Your task to perform on an android device: Search for vegetarian restaurants on Maps Image 0: 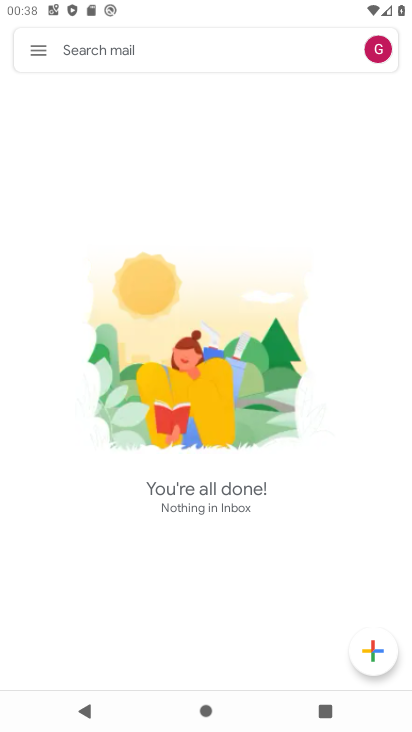
Step 0: press home button
Your task to perform on an android device: Search for vegetarian restaurants on Maps Image 1: 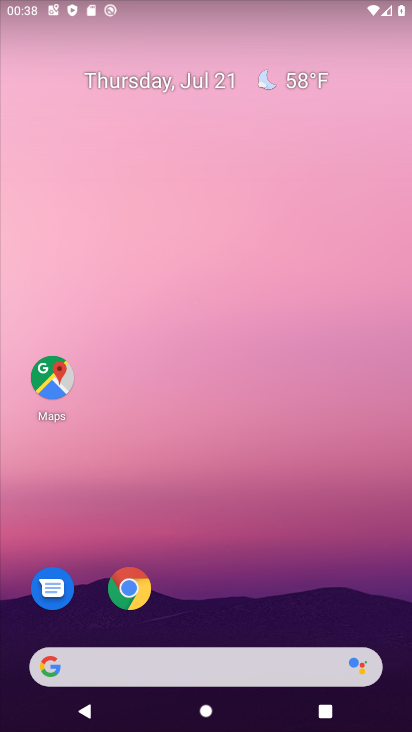
Step 1: click (62, 390)
Your task to perform on an android device: Search for vegetarian restaurants on Maps Image 2: 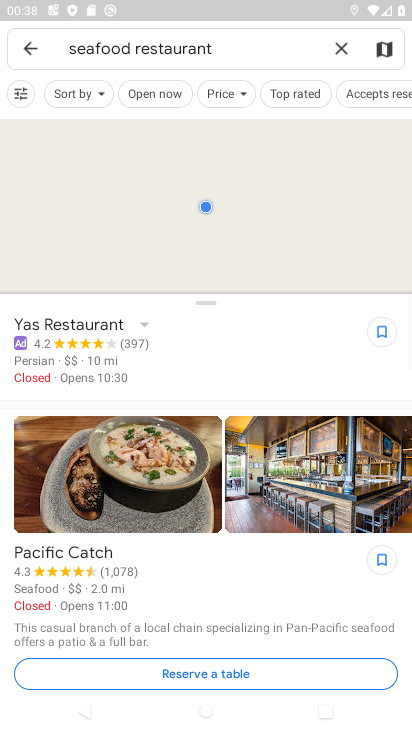
Step 2: click (104, 45)
Your task to perform on an android device: Search for vegetarian restaurants on Maps Image 3: 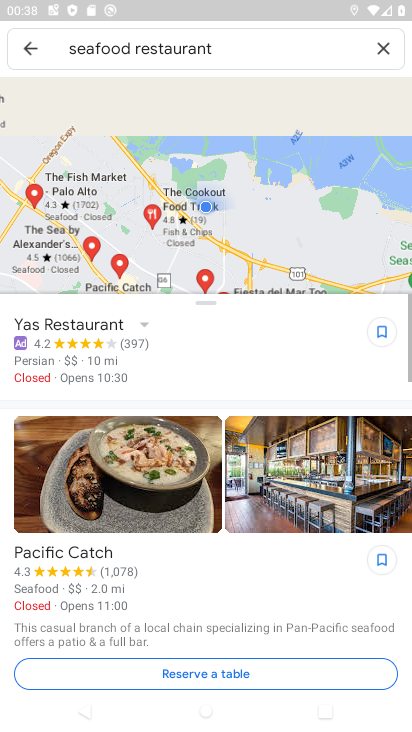
Step 3: click (109, 47)
Your task to perform on an android device: Search for vegetarian restaurants on Maps Image 4: 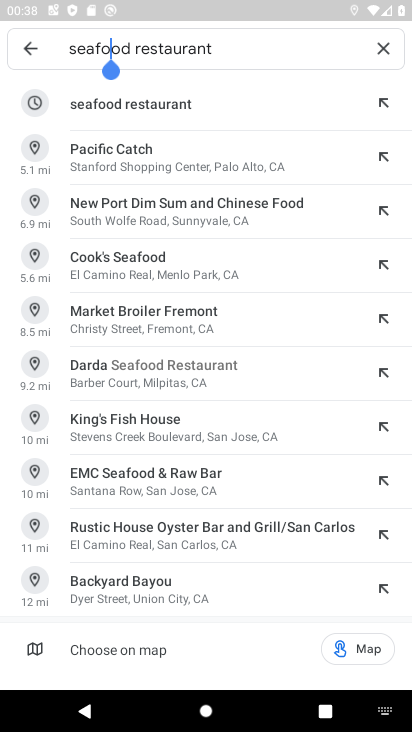
Step 4: click (112, 48)
Your task to perform on an android device: Search for vegetarian restaurants on Maps Image 5: 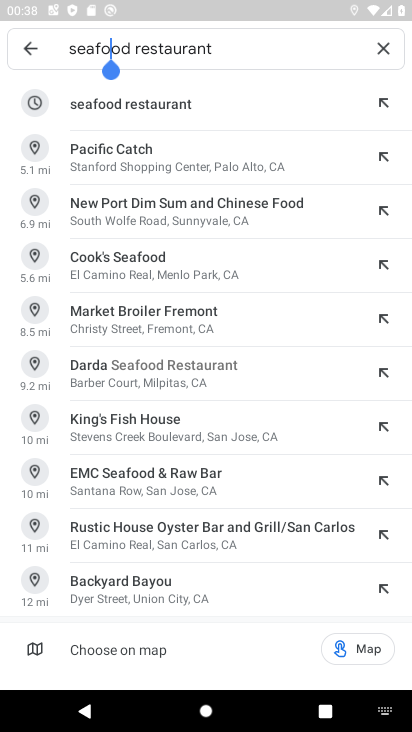
Step 5: click (112, 48)
Your task to perform on an android device: Search for vegetarian restaurants on Maps Image 6: 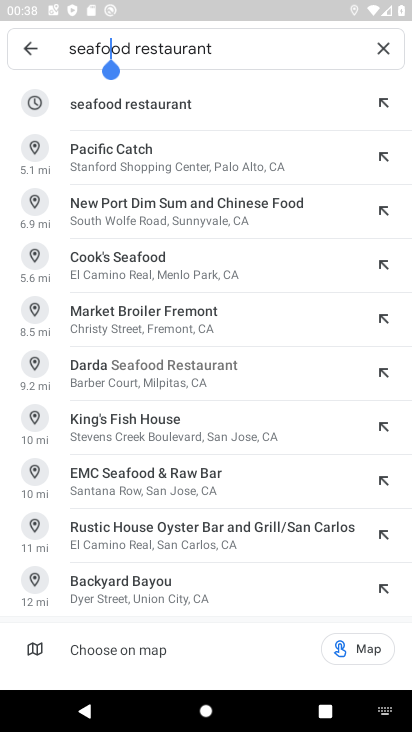
Step 6: click (113, 48)
Your task to perform on an android device: Search for vegetarian restaurants on Maps Image 7: 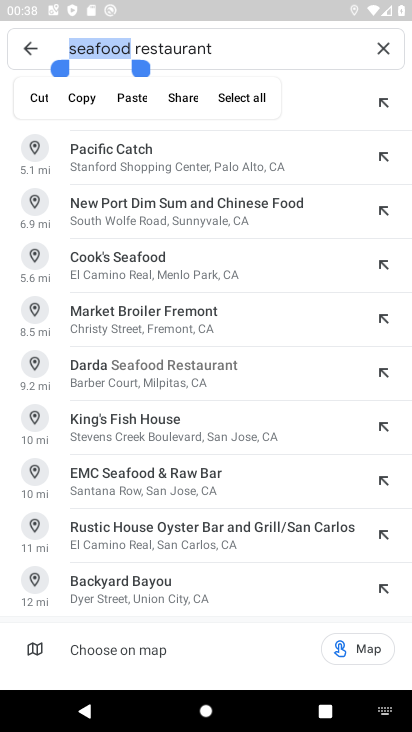
Step 7: type "Vegetarian"
Your task to perform on an android device: Search for vegetarian restaurants on Maps Image 8: 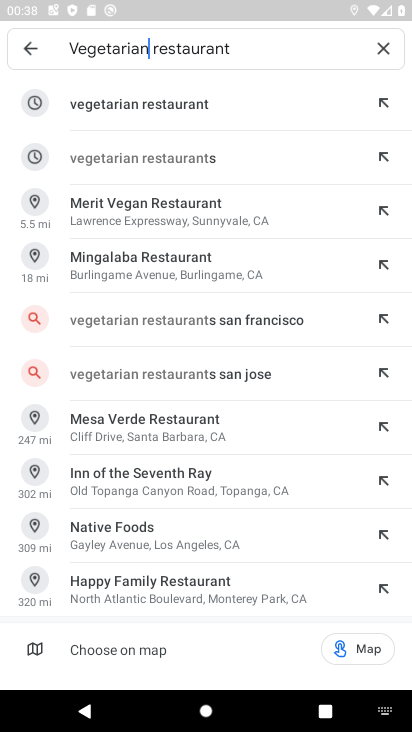
Step 8: click (184, 112)
Your task to perform on an android device: Search for vegetarian restaurants on Maps Image 9: 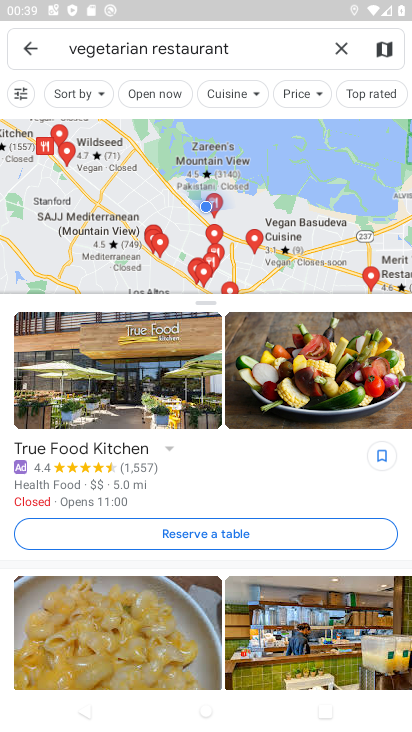
Step 9: task complete